Your task to perform on an android device: Open settings on Google Maps Image 0: 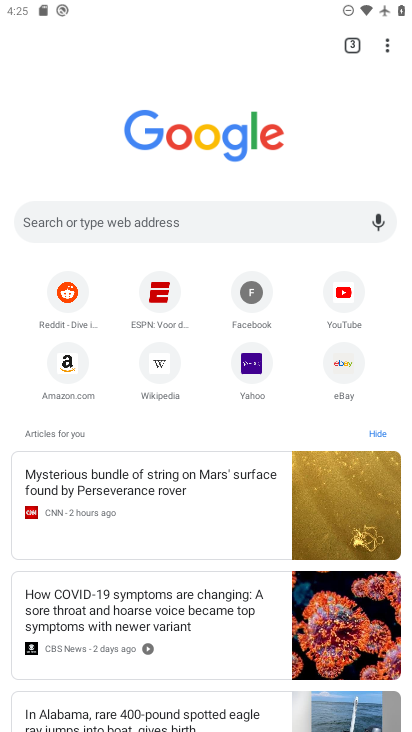
Step 0: press home button
Your task to perform on an android device: Open settings on Google Maps Image 1: 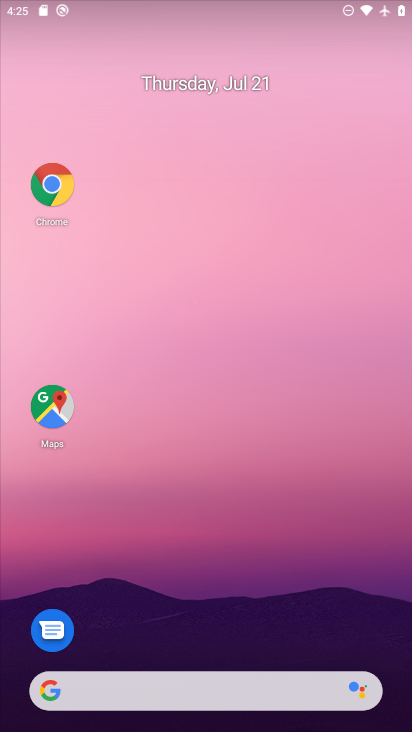
Step 1: drag from (177, 656) to (410, 590)
Your task to perform on an android device: Open settings on Google Maps Image 2: 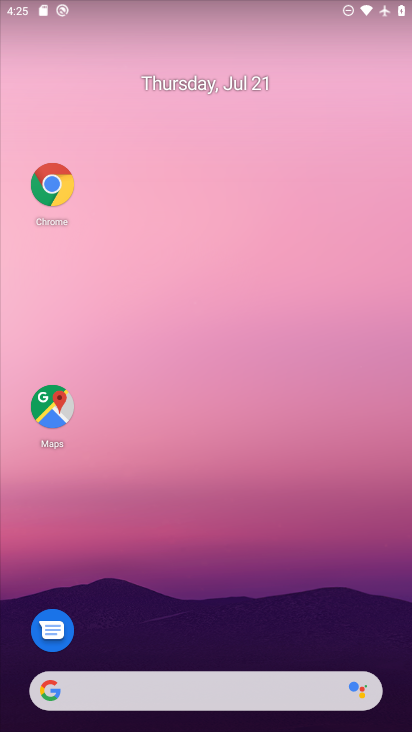
Step 2: drag from (191, 672) to (42, 114)
Your task to perform on an android device: Open settings on Google Maps Image 3: 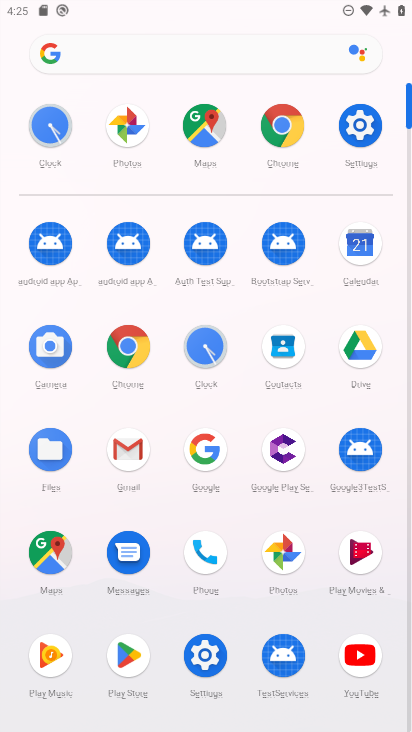
Step 3: click (54, 554)
Your task to perform on an android device: Open settings on Google Maps Image 4: 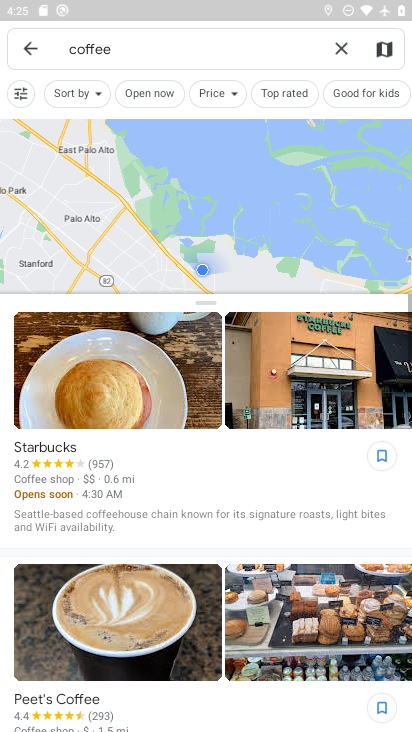
Step 4: click (8, 66)
Your task to perform on an android device: Open settings on Google Maps Image 5: 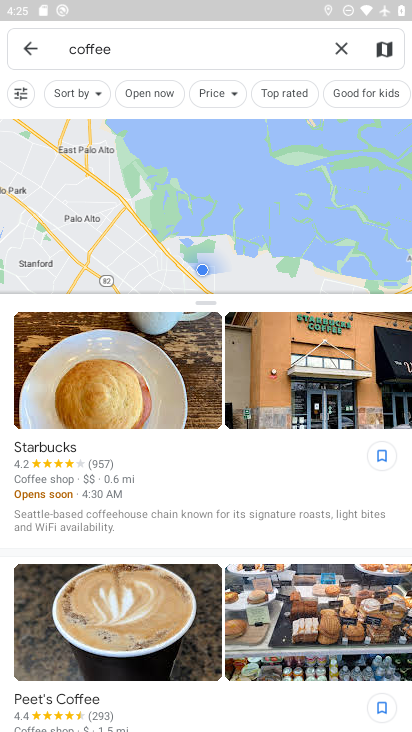
Step 5: click (30, 56)
Your task to perform on an android device: Open settings on Google Maps Image 6: 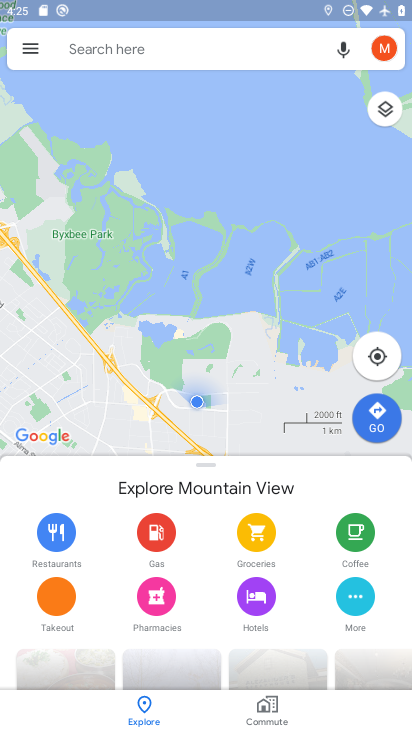
Step 6: click (31, 52)
Your task to perform on an android device: Open settings on Google Maps Image 7: 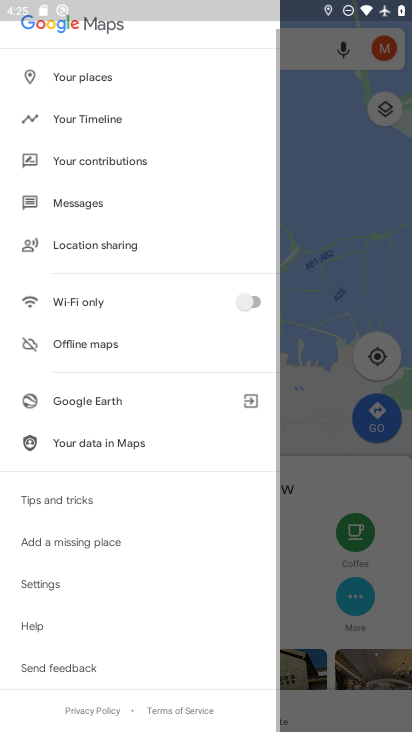
Step 7: click (74, 579)
Your task to perform on an android device: Open settings on Google Maps Image 8: 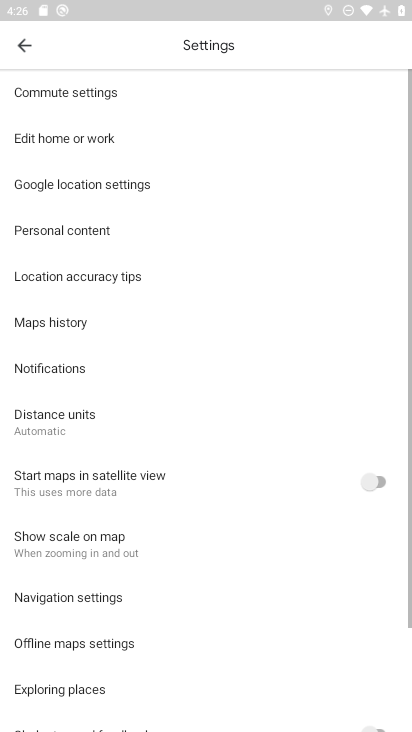
Step 8: task complete